Your task to perform on an android device: Find coffee shops on Maps Image 0: 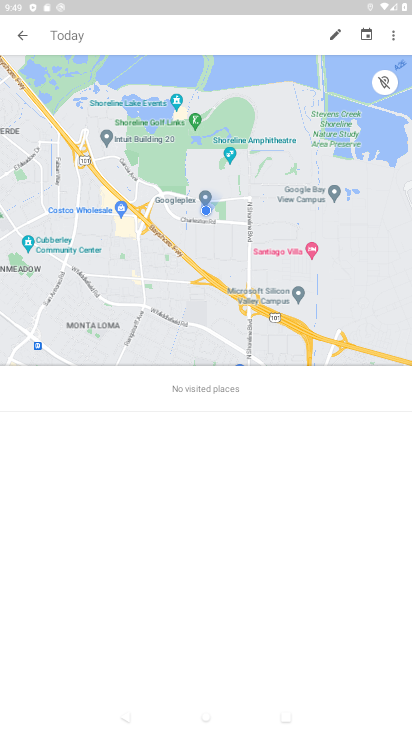
Step 0: drag from (229, 626) to (408, 312)
Your task to perform on an android device: Find coffee shops on Maps Image 1: 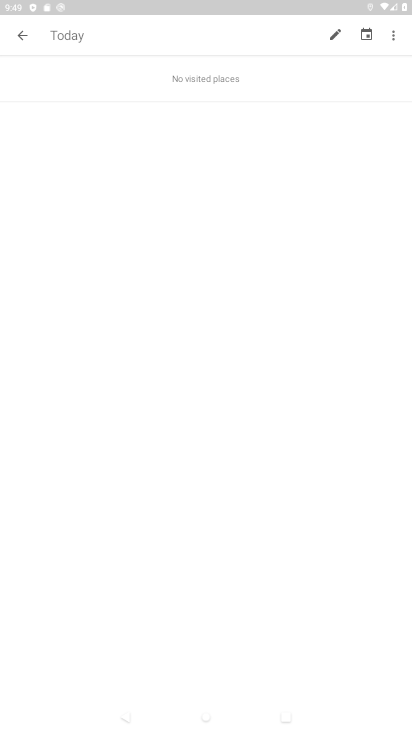
Step 1: press home button
Your task to perform on an android device: Find coffee shops on Maps Image 2: 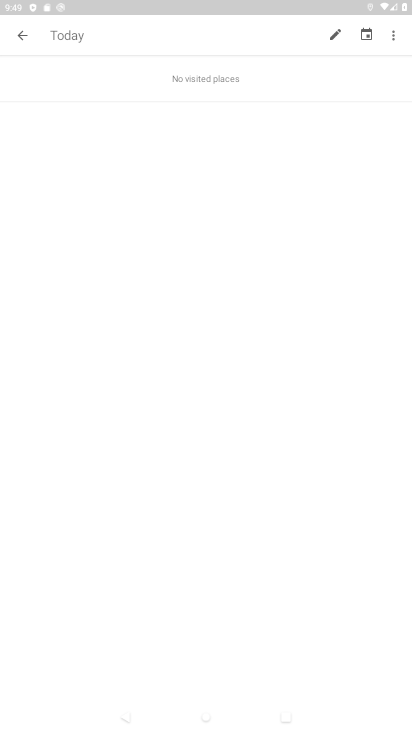
Step 2: click (400, 277)
Your task to perform on an android device: Find coffee shops on Maps Image 3: 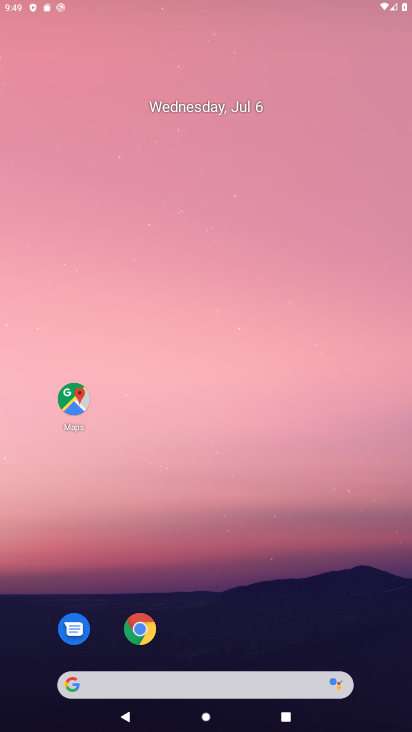
Step 3: click (216, 626)
Your task to perform on an android device: Find coffee shops on Maps Image 4: 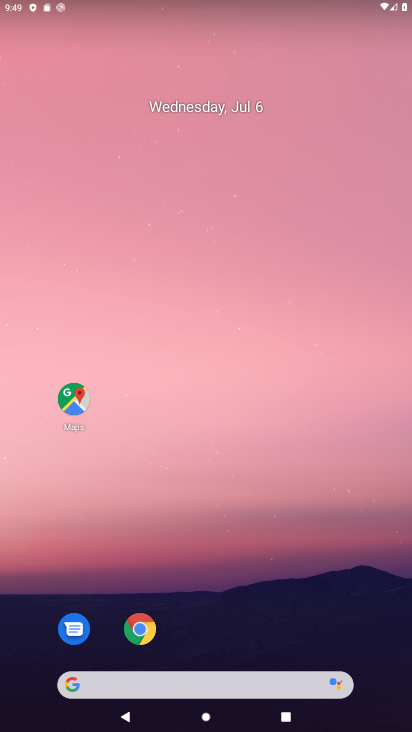
Step 4: click (78, 401)
Your task to perform on an android device: Find coffee shops on Maps Image 5: 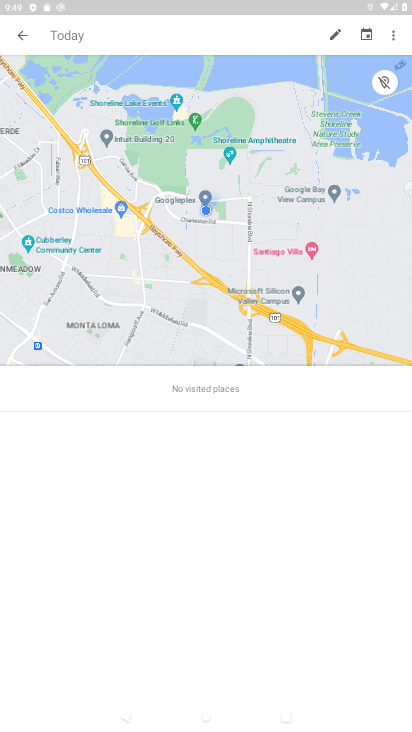
Step 5: press back button
Your task to perform on an android device: Find coffee shops on Maps Image 6: 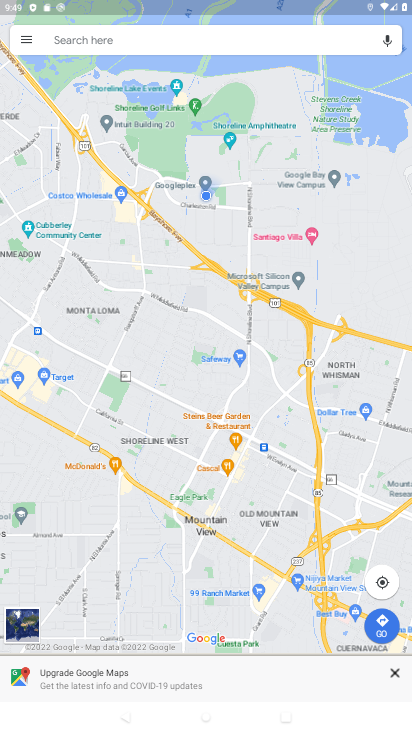
Step 6: click (168, 40)
Your task to perform on an android device: Find coffee shops on Maps Image 7: 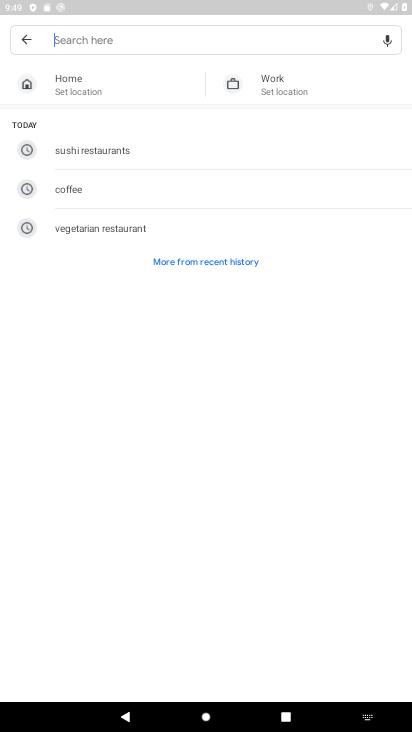
Step 7: type "coffee shops"
Your task to perform on an android device: Find coffee shops on Maps Image 8: 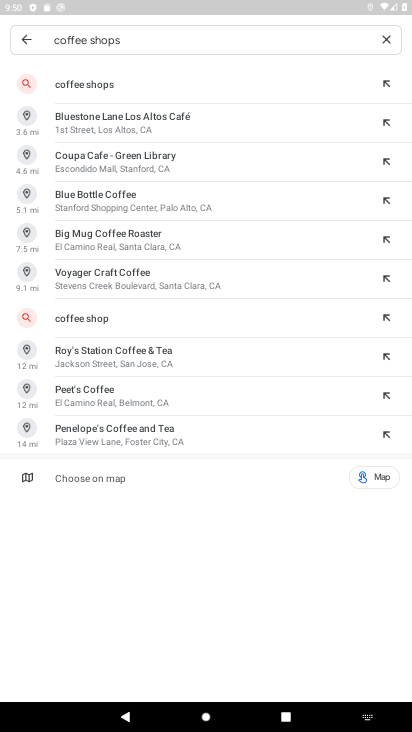
Step 8: click (151, 89)
Your task to perform on an android device: Find coffee shops on Maps Image 9: 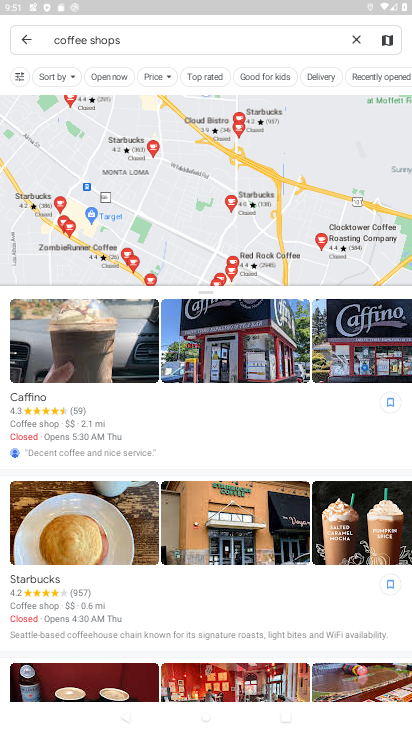
Step 9: task complete